Your task to perform on an android device: open app "Google Chat" Image 0: 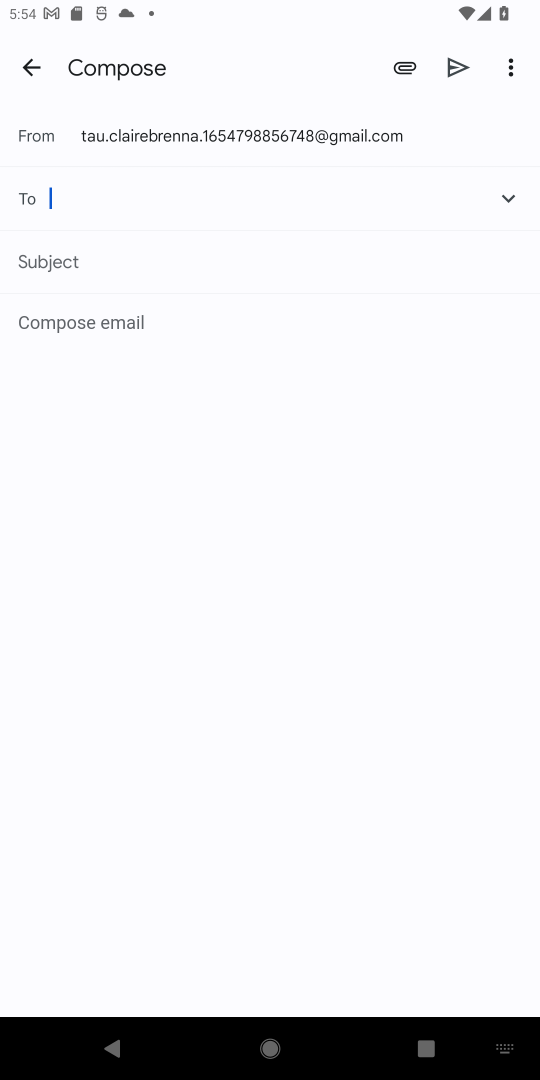
Step 0: press home button
Your task to perform on an android device: open app "Google Chat" Image 1: 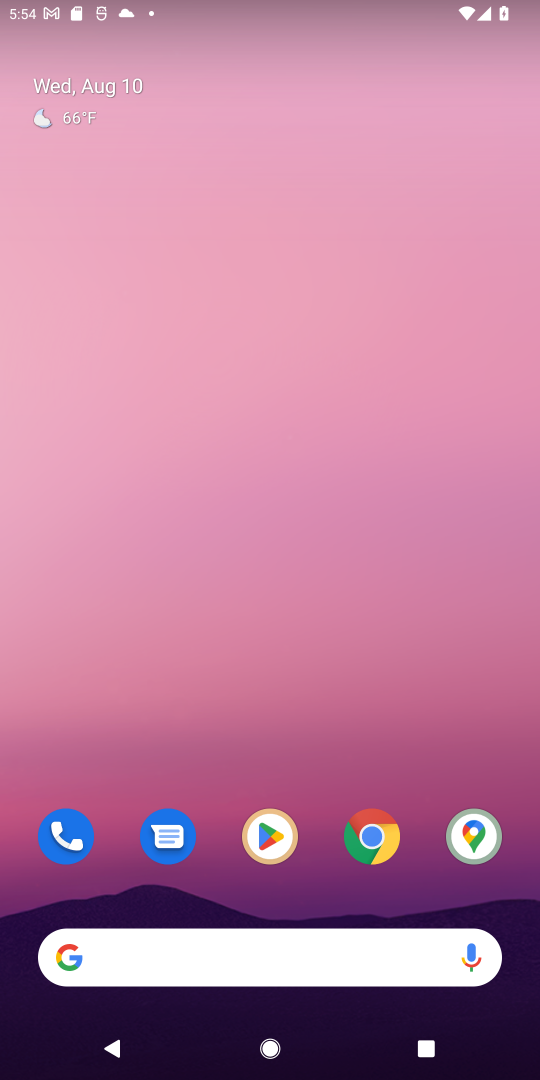
Step 1: drag from (287, 821) to (258, 534)
Your task to perform on an android device: open app "Google Chat" Image 2: 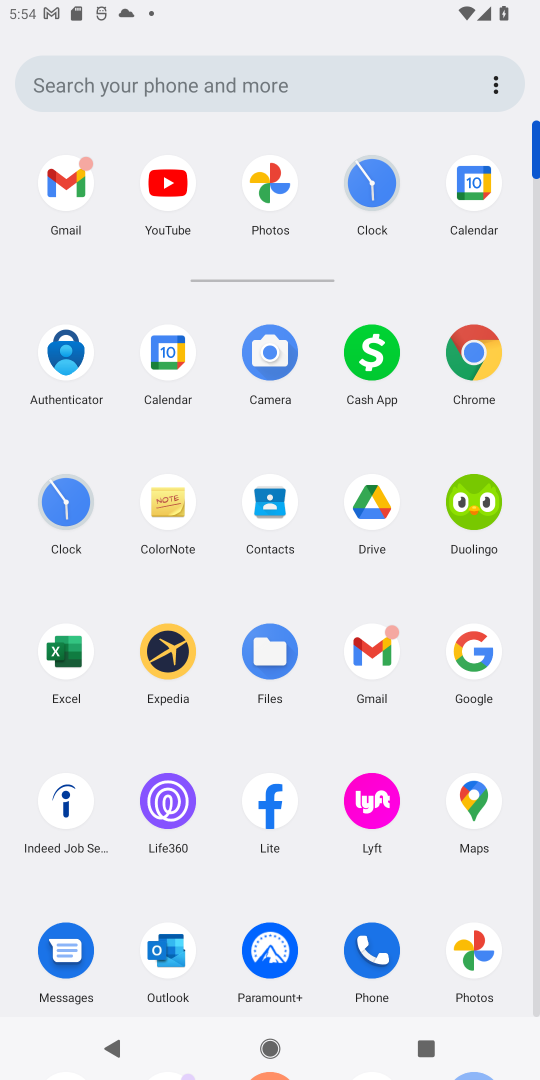
Step 2: drag from (237, 805) to (277, 235)
Your task to perform on an android device: open app "Google Chat" Image 3: 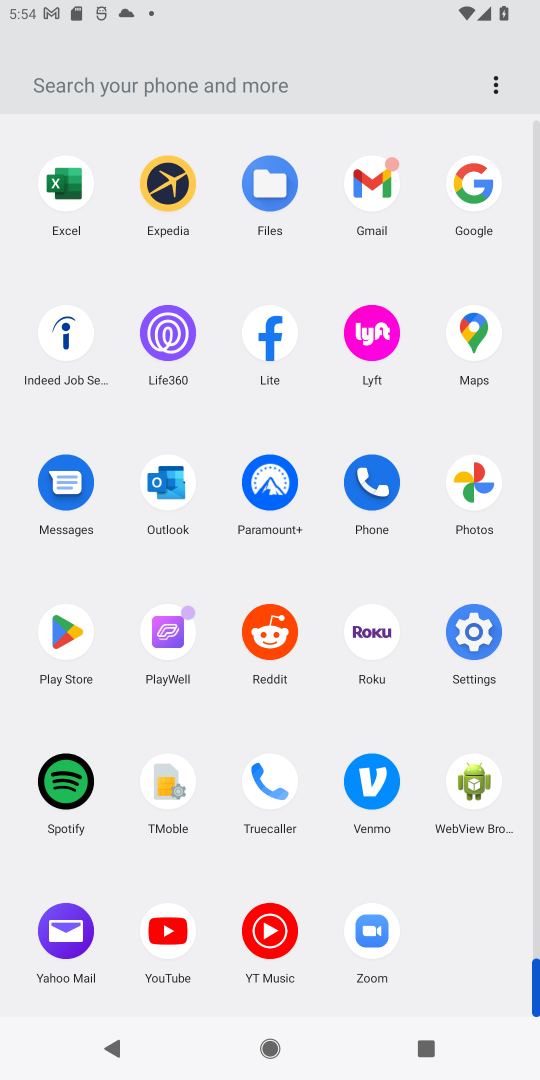
Step 3: click (67, 623)
Your task to perform on an android device: open app "Google Chat" Image 4: 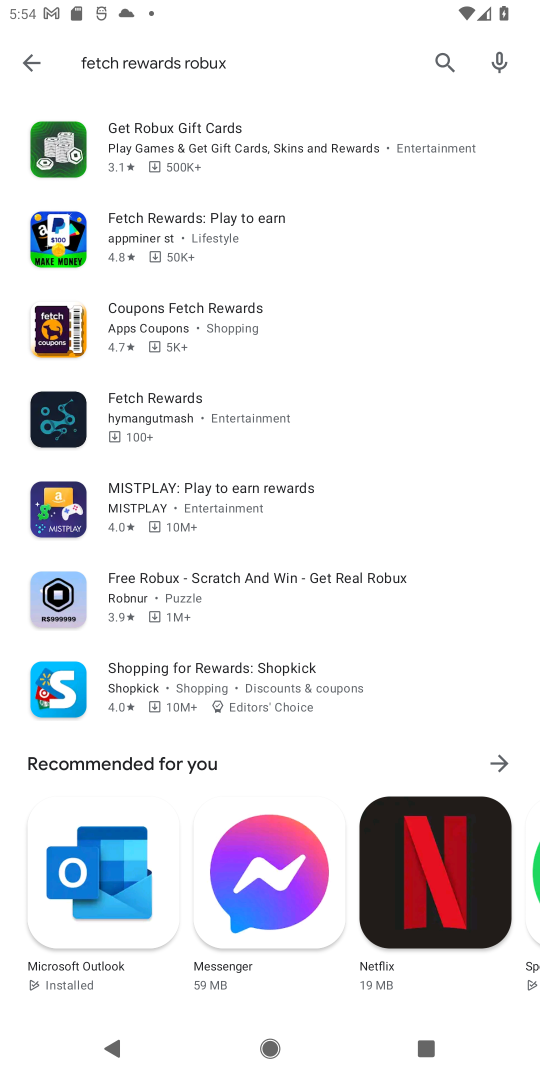
Step 4: click (30, 67)
Your task to perform on an android device: open app "Google Chat" Image 5: 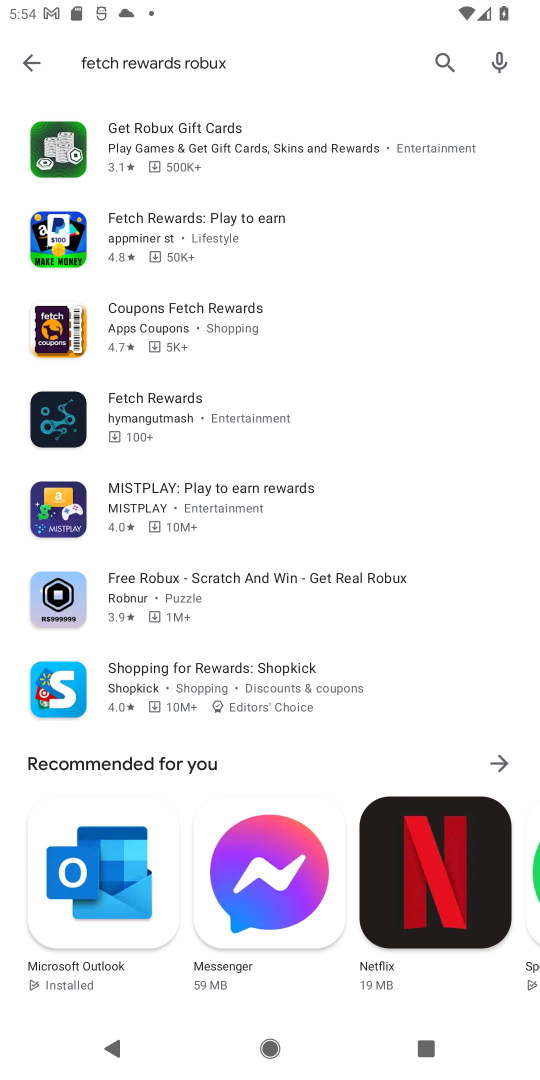
Step 5: click (37, 63)
Your task to perform on an android device: open app "Google Chat" Image 6: 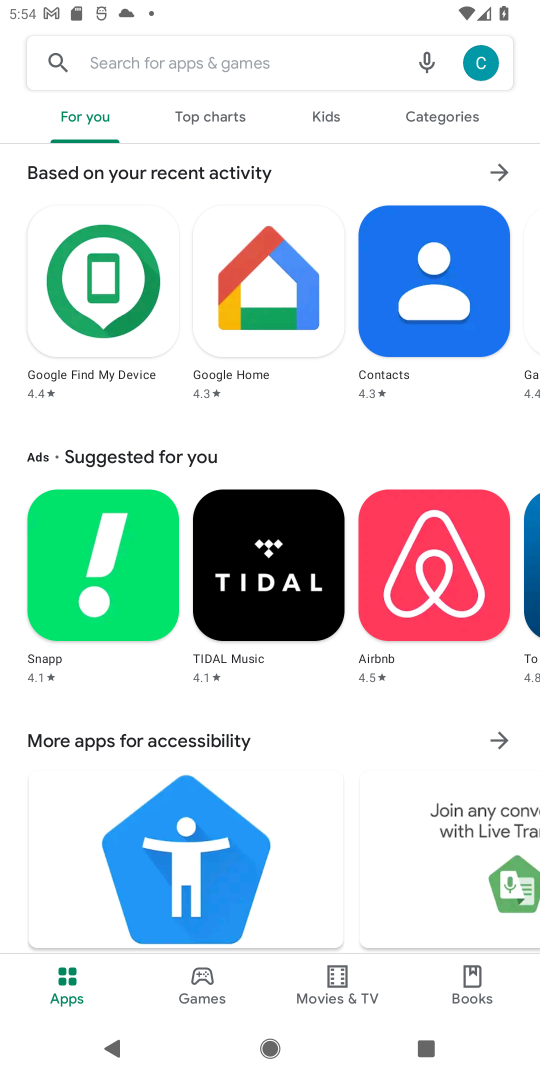
Step 6: click (280, 48)
Your task to perform on an android device: open app "Google Chat" Image 7: 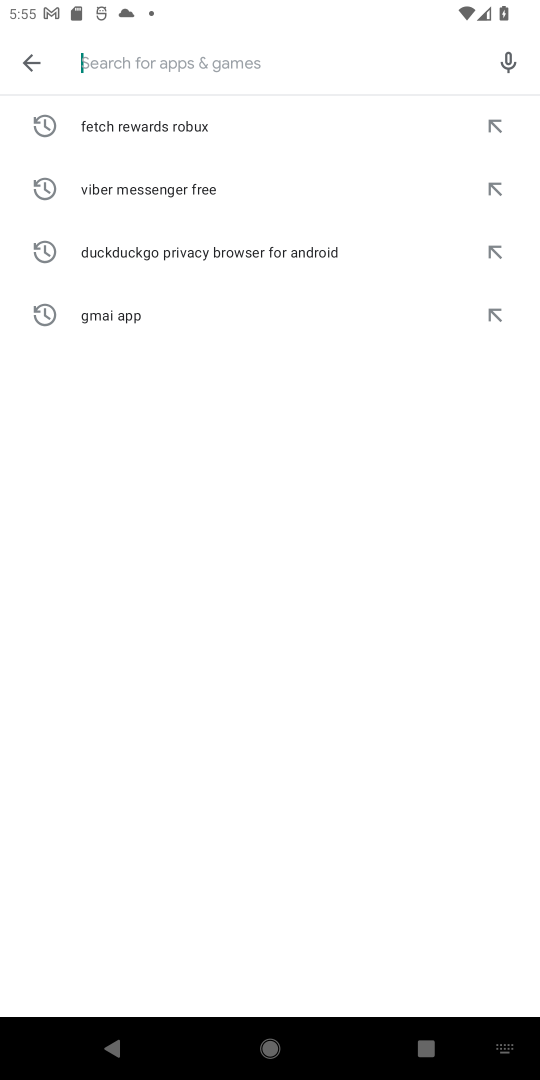
Step 7: type "Google Chat "
Your task to perform on an android device: open app "Google Chat" Image 8: 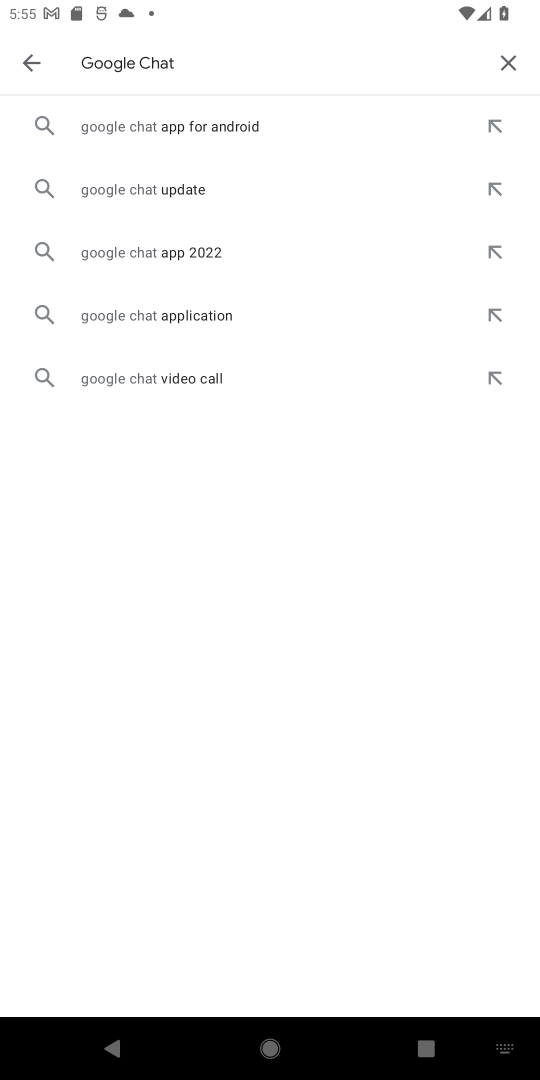
Step 8: click (205, 140)
Your task to perform on an android device: open app "Google Chat" Image 9: 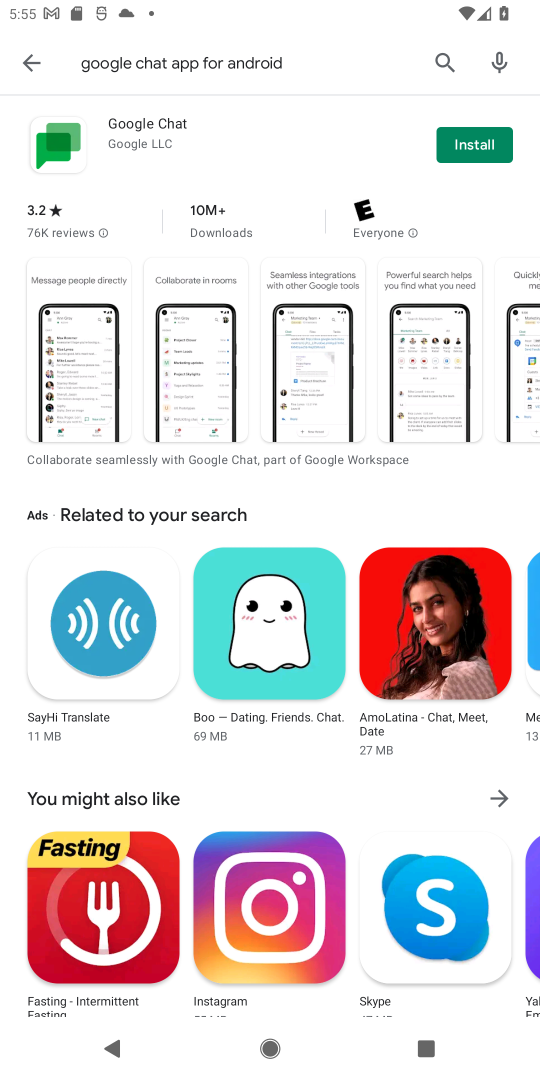
Step 9: click (441, 156)
Your task to perform on an android device: open app "Google Chat" Image 10: 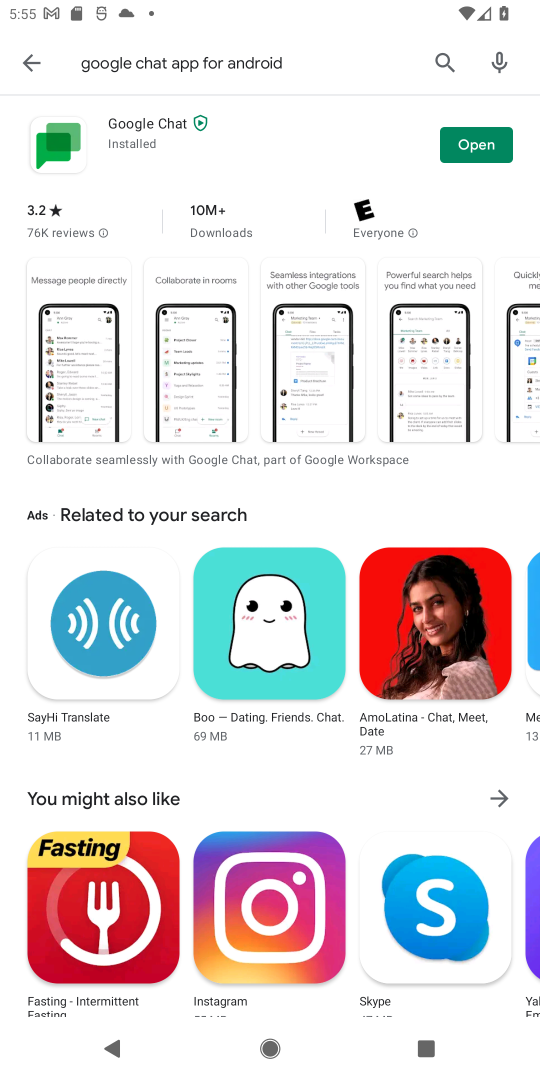
Step 10: click (488, 151)
Your task to perform on an android device: open app "Google Chat" Image 11: 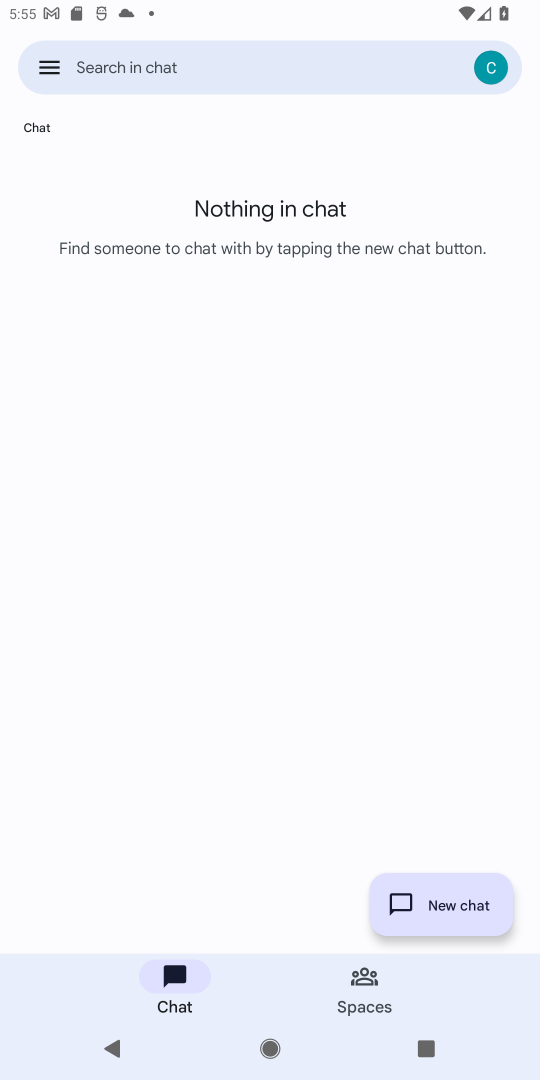
Step 11: task complete